Your task to perform on an android device: change alarm snooze length Image 0: 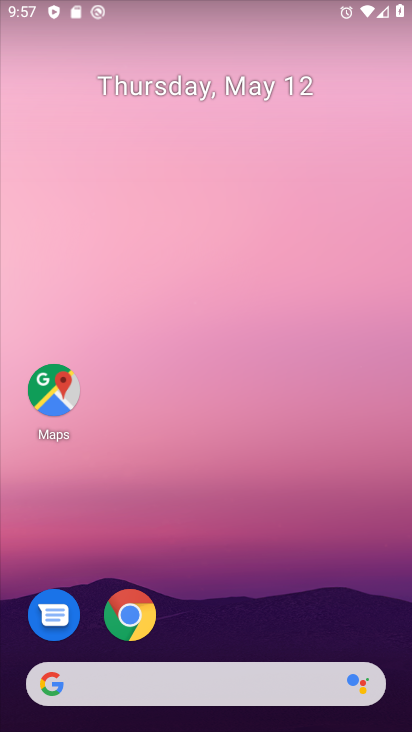
Step 0: drag from (242, 612) to (313, 68)
Your task to perform on an android device: change alarm snooze length Image 1: 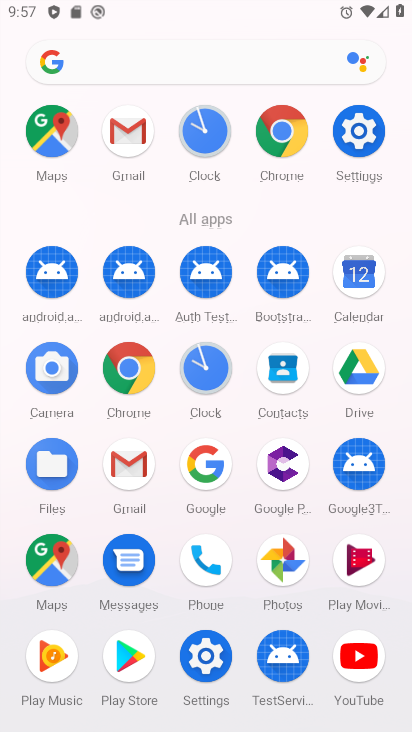
Step 1: click (357, 129)
Your task to perform on an android device: change alarm snooze length Image 2: 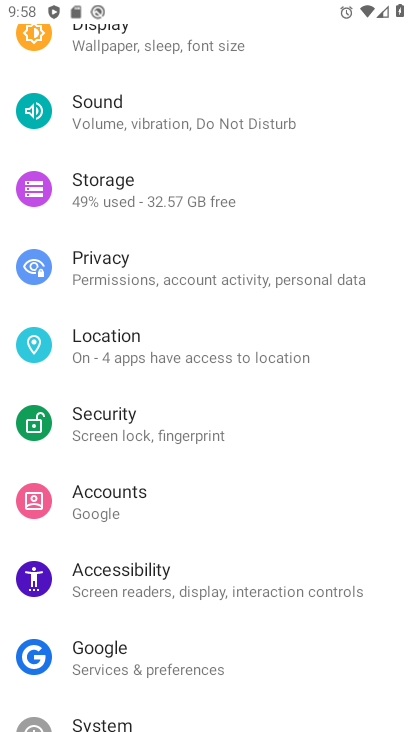
Step 2: press home button
Your task to perform on an android device: change alarm snooze length Image 3: 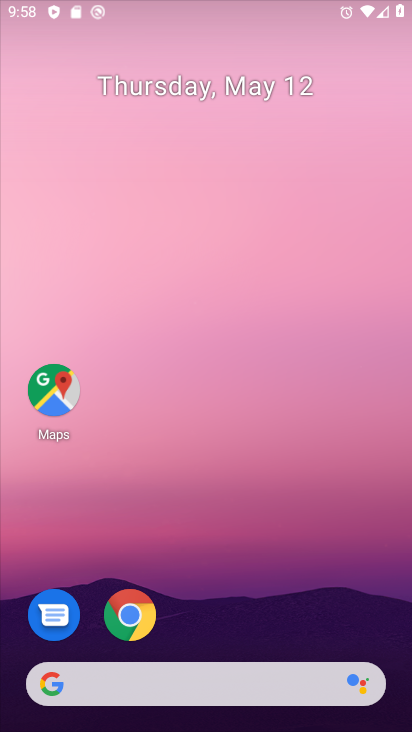
Step 3: drag from (298, 603) to (351, 37)
Your task to perform on an android device: change alarm snooze length Image 4: 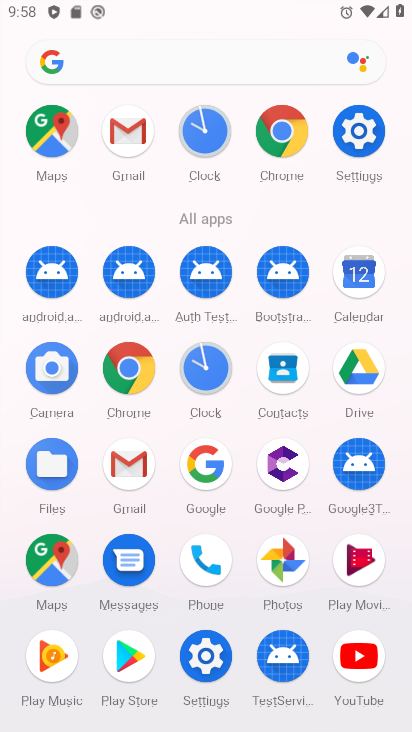
Step 4: click (190, 131)
Your task to perform on an android device: change alarm snooze length Image 5: 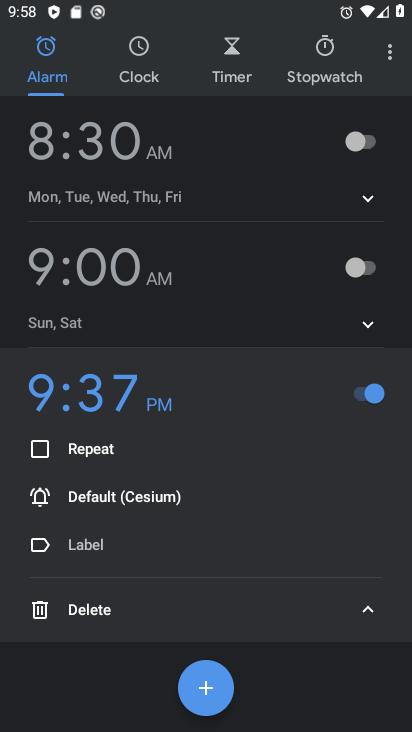
Step 5: click (398, 56)
Your task to perform on an android device: change alarm snooze length Image 6: 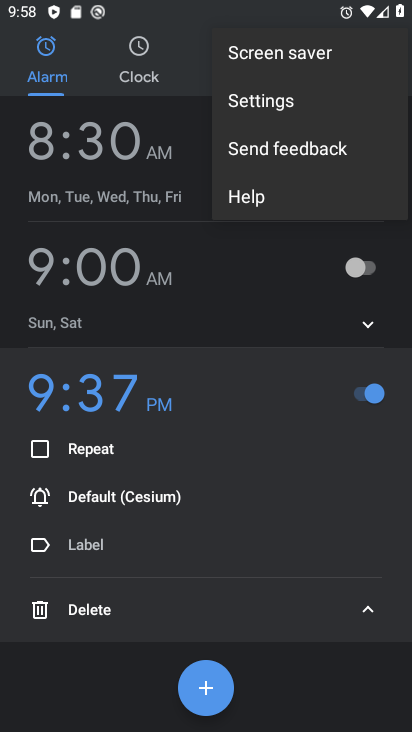
Step 6: click (276, 110)
Your task to perform on an android device: change alarm snooze length Image 7: 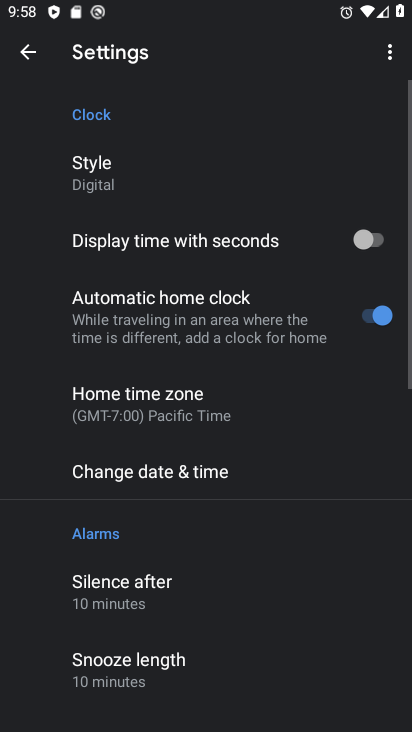
Step 7: drag from (238, 577) to (371, 100)
Your task to perform on an android device: change alarm snooze length Image 8: 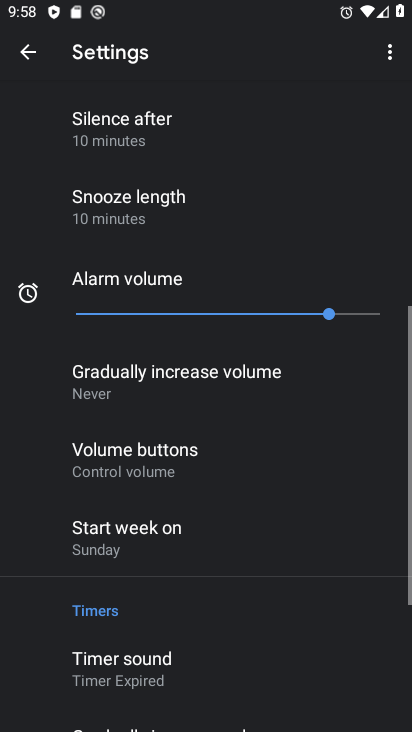
Step 8: drag from (233, 570) to (315, 203)
Your task to perform on an android device: change alarm snooze length Image 9: 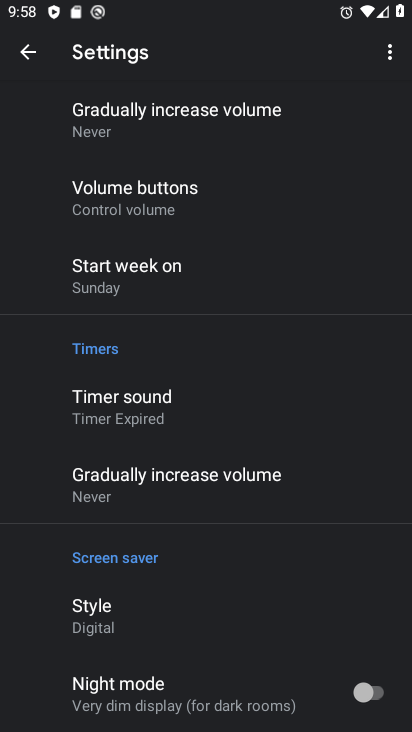
Step 9: drag from (244, 177) to (170, 684)
Your task to perform on an android device: change alarm snooze length Image 10: 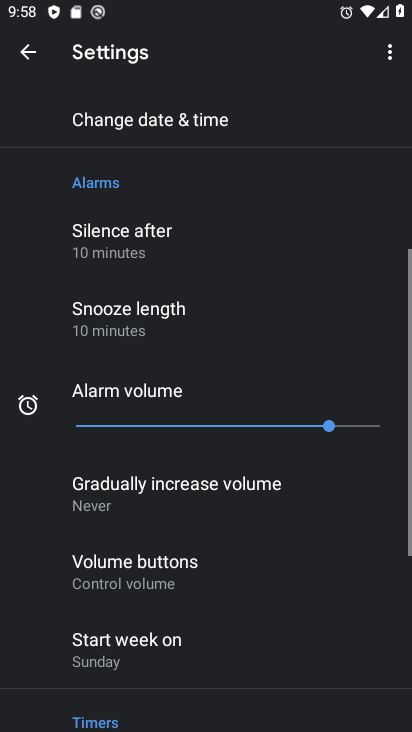
Step 10: drag from (221, 175) to (199, 691)
Your task to perform on an android device: change alarm snooze length Image 11: 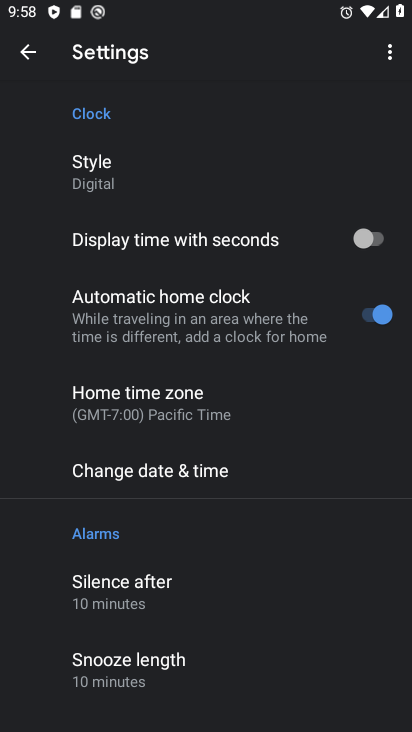
Step 11: drag from (177, 427) to (211, 682)
Your task to perform on an android device: change alarm snooze length Image 12: 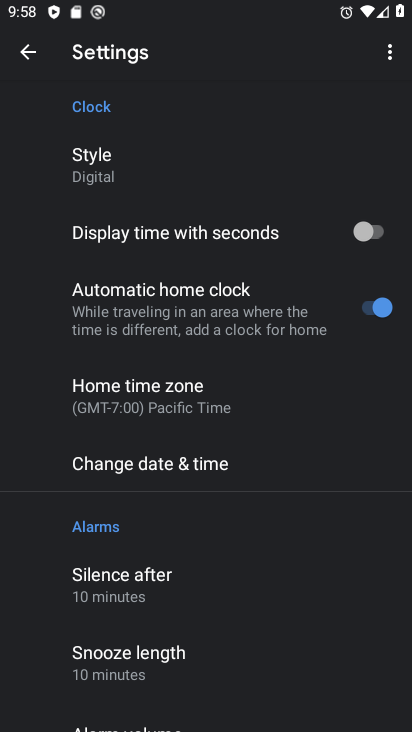
Step 12: drag from (201, 496) to (273, 252)
Your task to perform on an android device: change alarm snooze length Image 13: 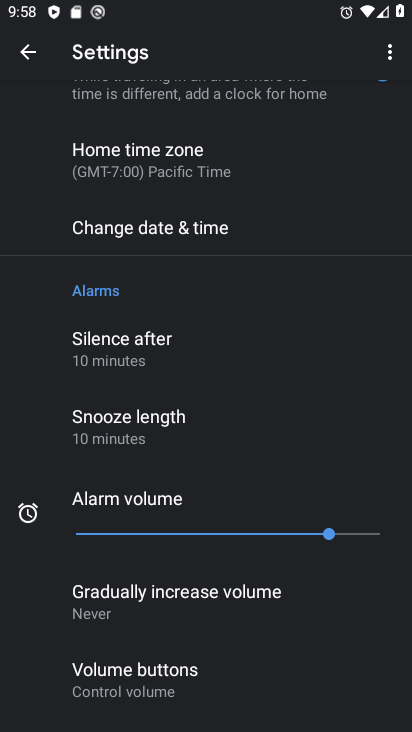
Step 13: drag from (162, 583) to (263, 194)
Your task to perform on an android device: change alarm snooze length Image 14: 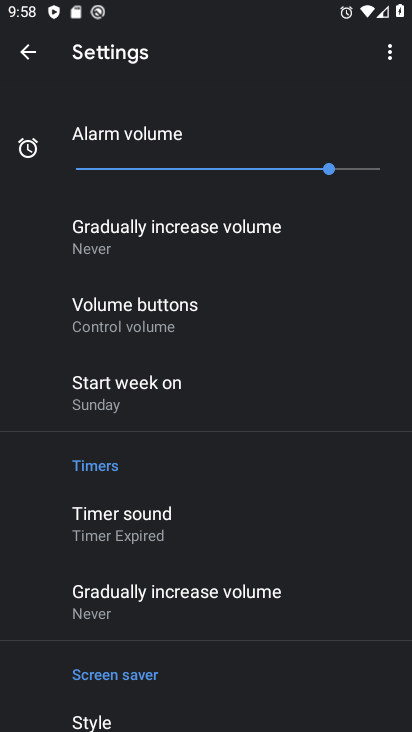
Step 14: drag from (168, 530) to (283, 153)
Your task to perform on an android device: change alarm snooze length Image 15: 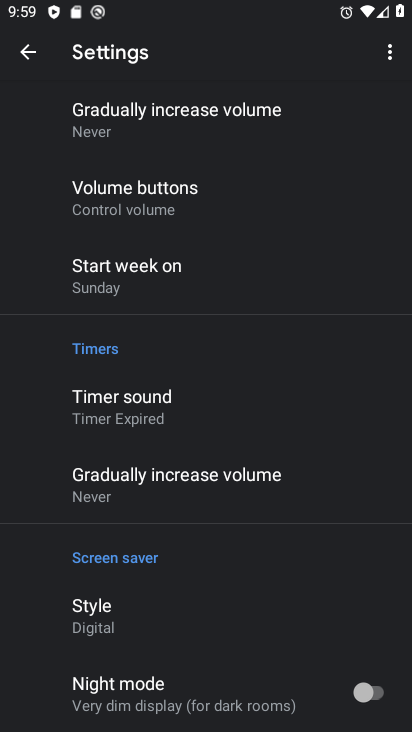
Step 15: drag from (256, 302) to (176, 667)
Your task to perform on an android device: change alarm snooze length Image 16: 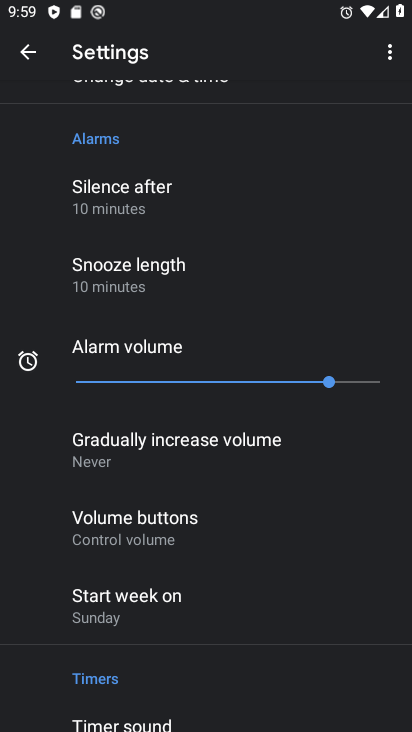
Step 16: click (135, 294)
Your task to perform on an android device: change alarm snooze length Image 17: 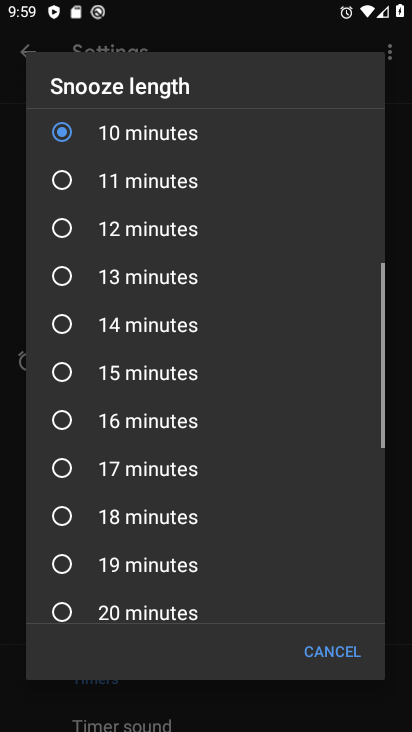
Step 17: click (149, 176)
Your task to perform on an android device: change alarm snooze length Image 18: 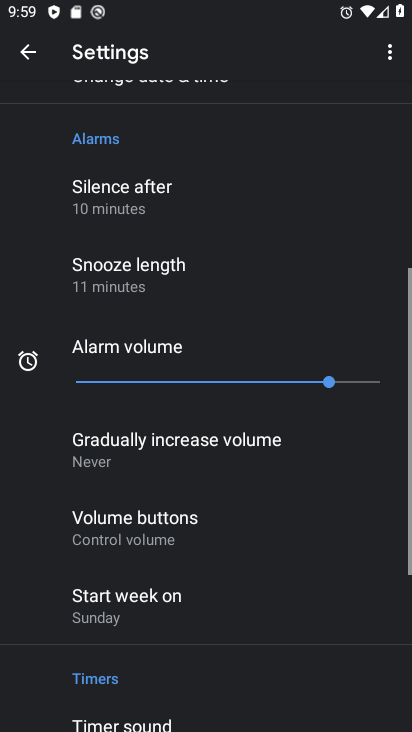
Step 18: task complete